Your task to perform on an android device: turn off data saver in the chrome app Image 0: 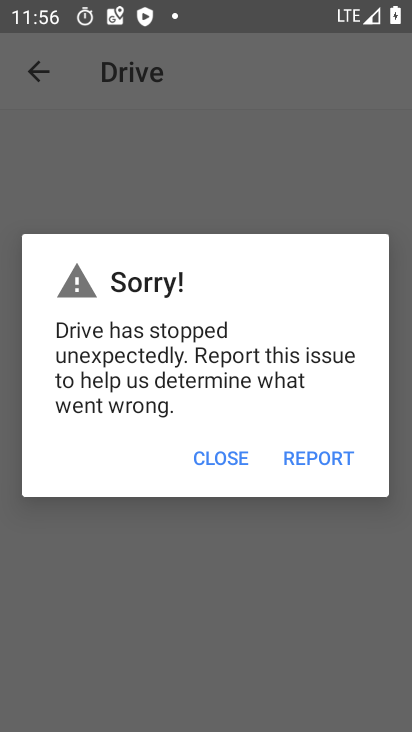
Step 0: press home button
Your task to perform on an android device: turn off data saver in the chrome app Image 1: 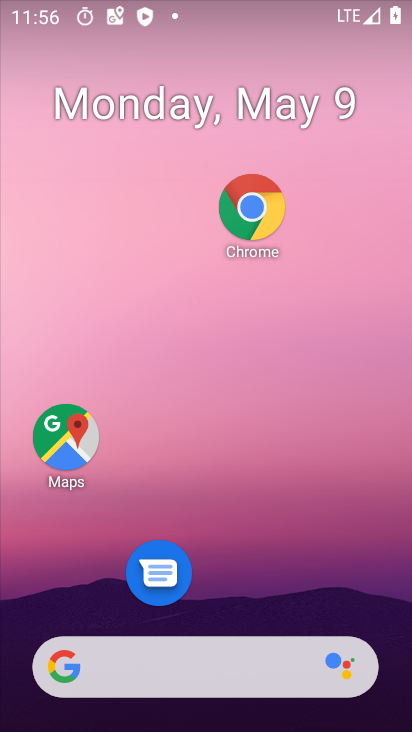
Step 1: drag from (295, 579) to (386, 11)
Your task to perform on an android device: turn off data saver in the chrome app Image 2: 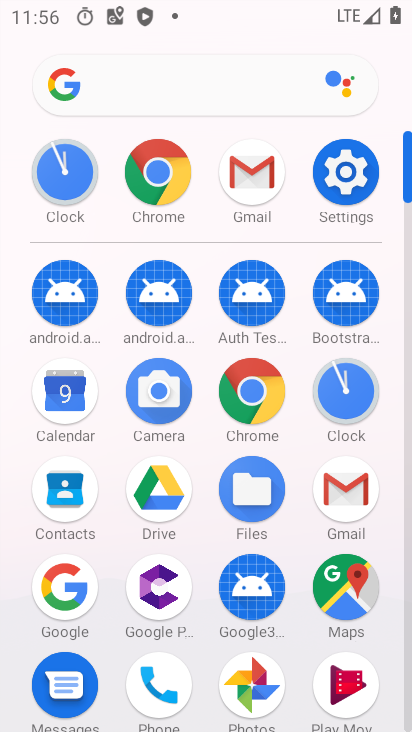
Step 2: click (165, 185)
Your task to perform on an android device: turn off data saver in the chrome app Image 3: 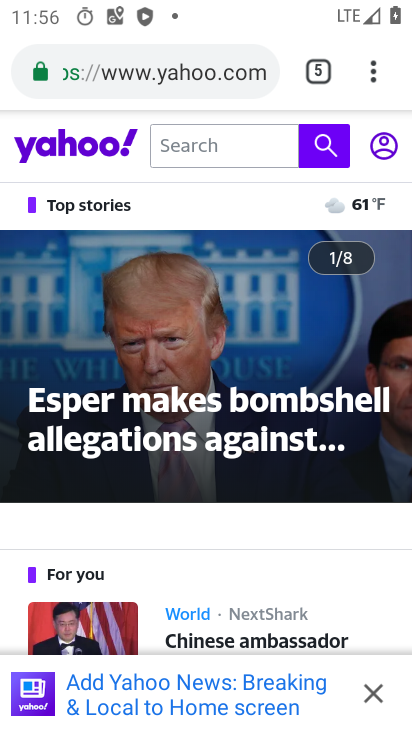
Step 3: click (383, 69)
Your task to perform on an android device: turn off data saver in the chrome app Image 4: 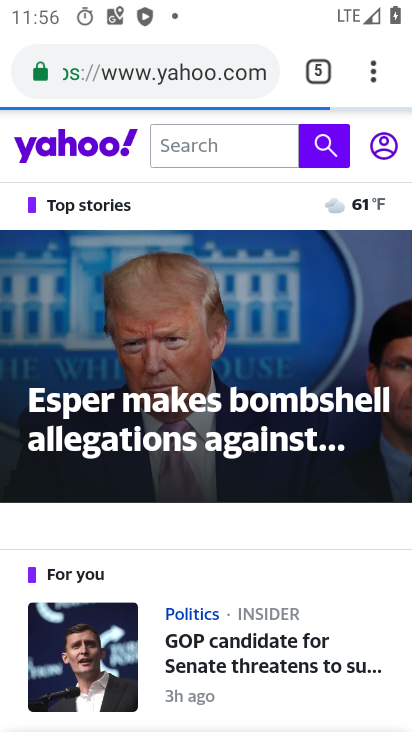
Step 4: click (377, 79)
Your task to perform on an android device: turn off data saver in the chrome app Image 5: 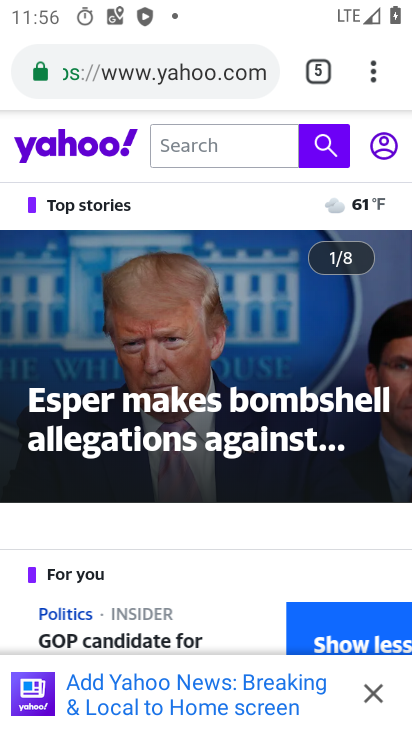
Step 5: click (377, 79)
Your task to perform on an android device: turn off data saver in the chrome app Image 6: 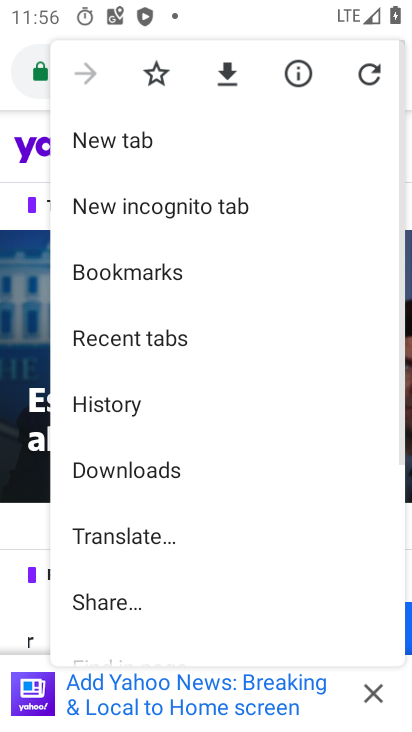
Step 6: drag from (323, 583) to (313, 281)
Your task to perform on an android device: turn off data saver in the chrome app Image 7: 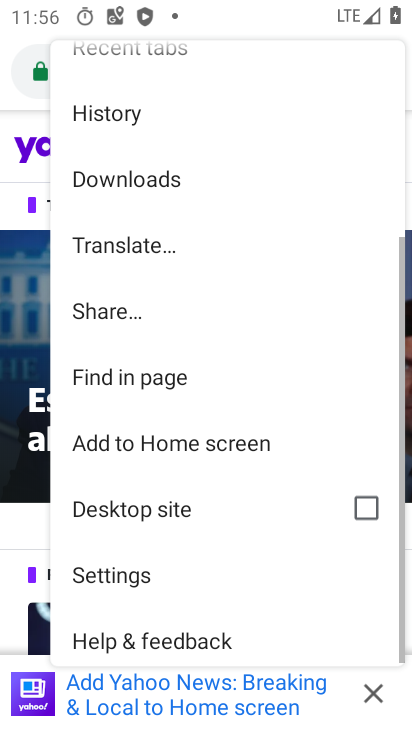
Step 7: drag from (191, 614) to (193, 449)
Your task to perform on an android device: turn off data saver in the chrome app Image 8: 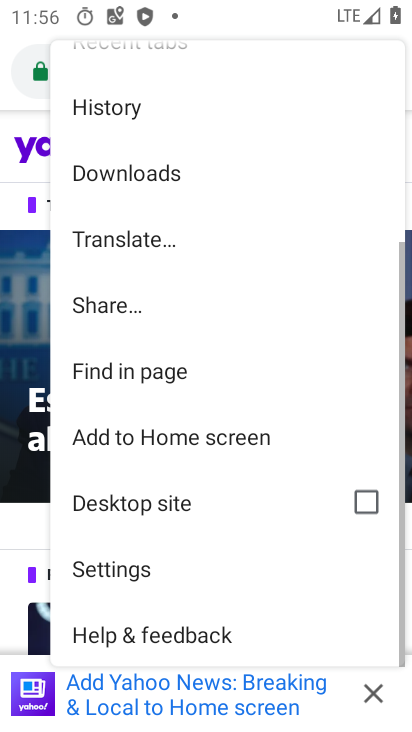
Step 8: click (167, 551)
Your task to perform on an android device: turn off data saver in the chrome app Image 9: 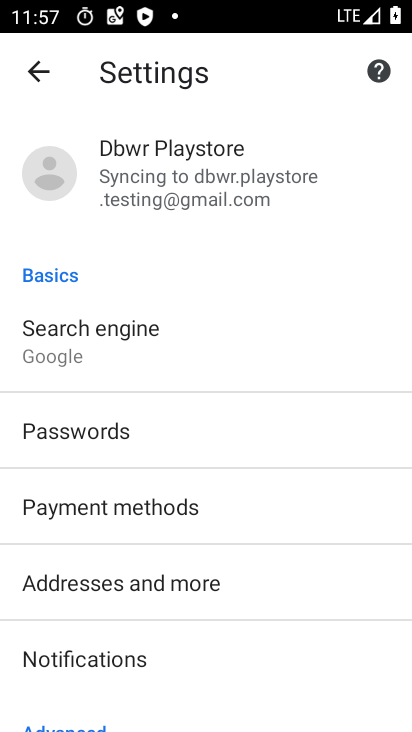
Step 9: drag from (167, 551) to (147, 209)
Your task to perform on an android device: turn off data saver in the chrome app Image 10: 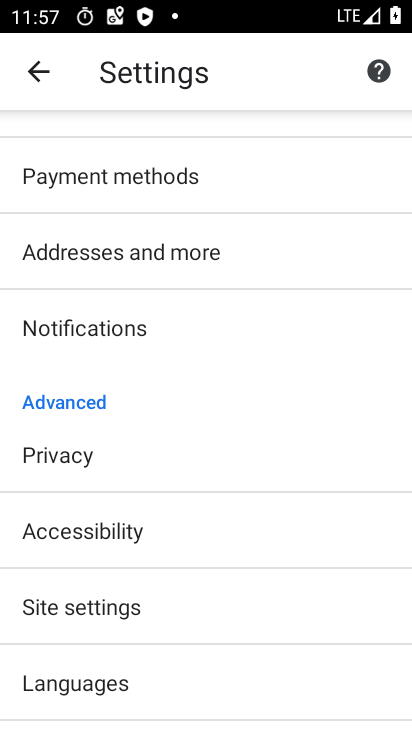
Step 10: drag from (180, 663) to (293, 307)
Your task to perform on an android device: turn off data saver in the chrome app Image 11: 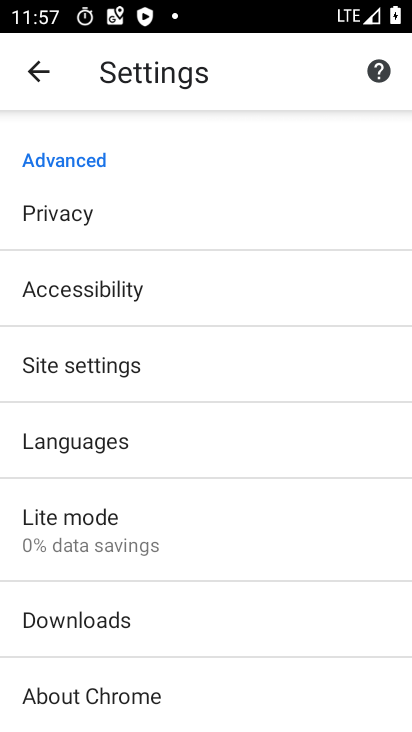
Step 11: click (177, 550)
Your task to perform on an android device: turn off data saver in the chrome app Image 12: 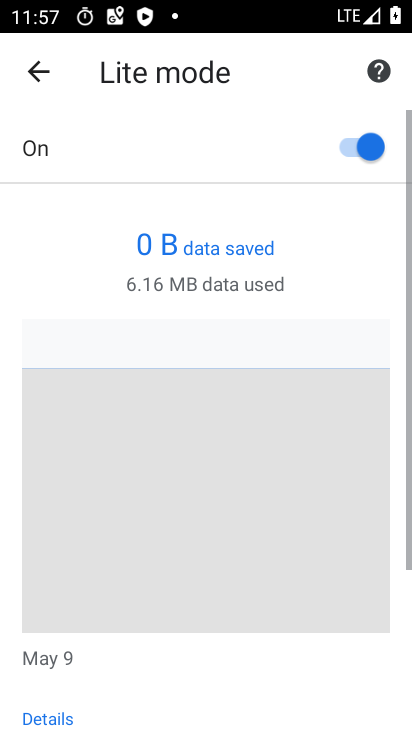
Step 12: click (354, 159)
Your task to perform on an android device: turn off data saver in the chrome app Image 13: 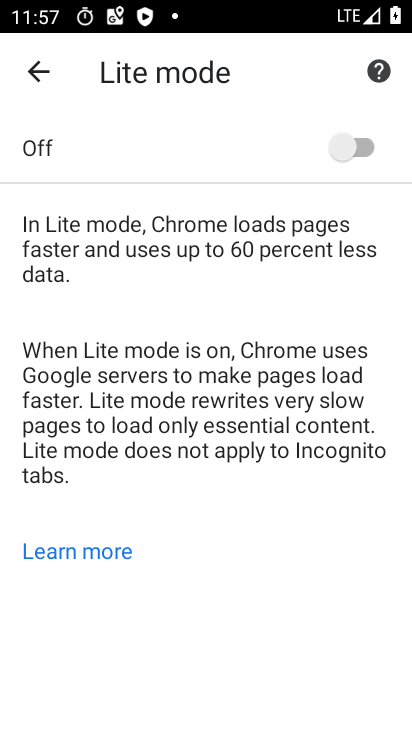
Step 13: task complete